Your task to perform on an android device: Is it going to rain tomorrow? Image 0: 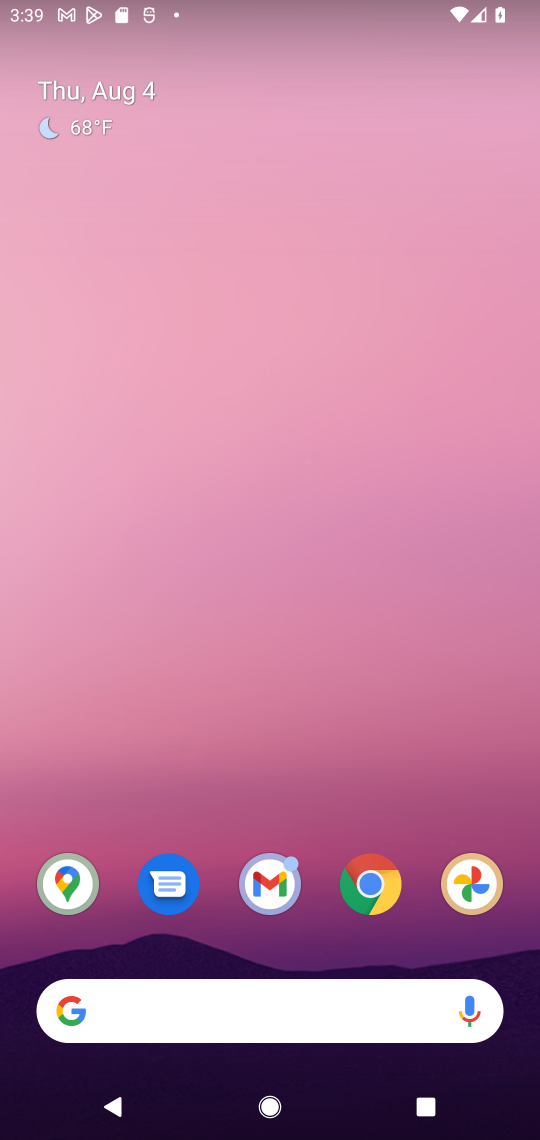
Step 0: click (208, 1004)
Your task to perform on an android device: Is it going to rain tomorrow? Image 1: 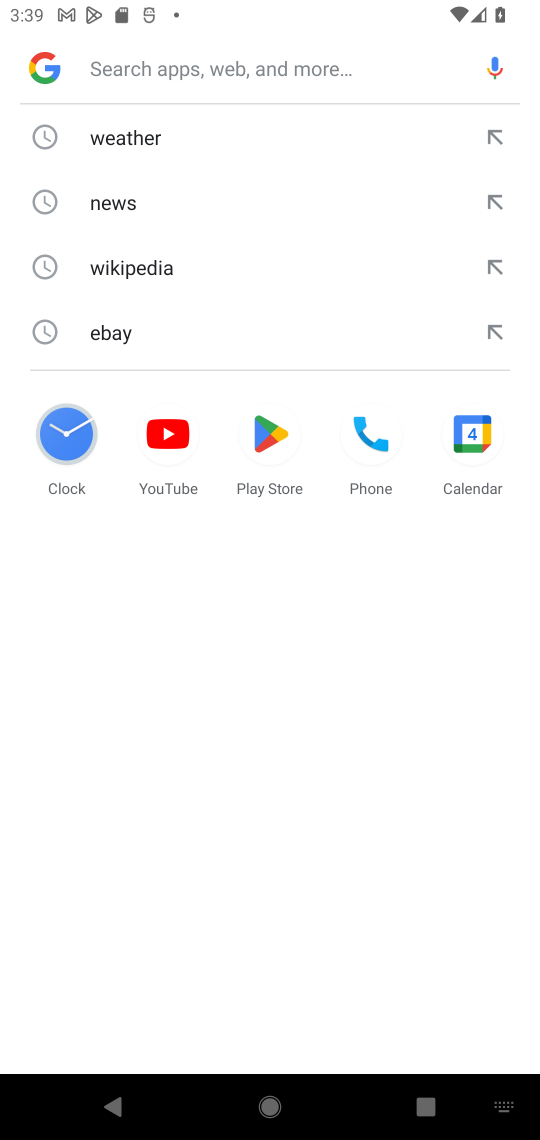
Step 1: type "rain"
Your task to perform on an android device: Is it going to rain tomorrow? Image 2: 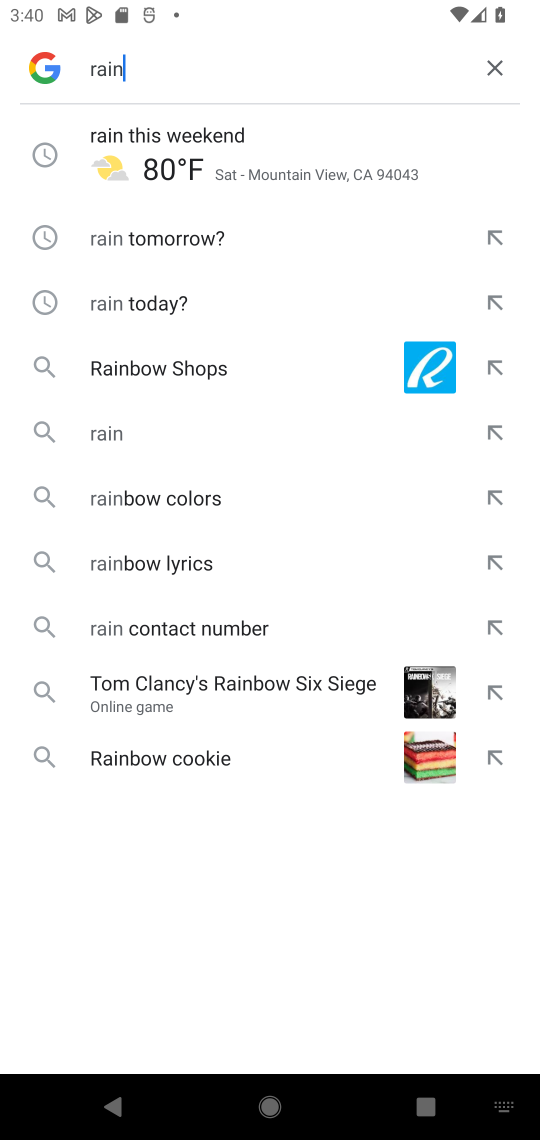
Step 2: click (225, 121)
Your task to perform on an android device: Is it going to rain tomorrow? Image 3: 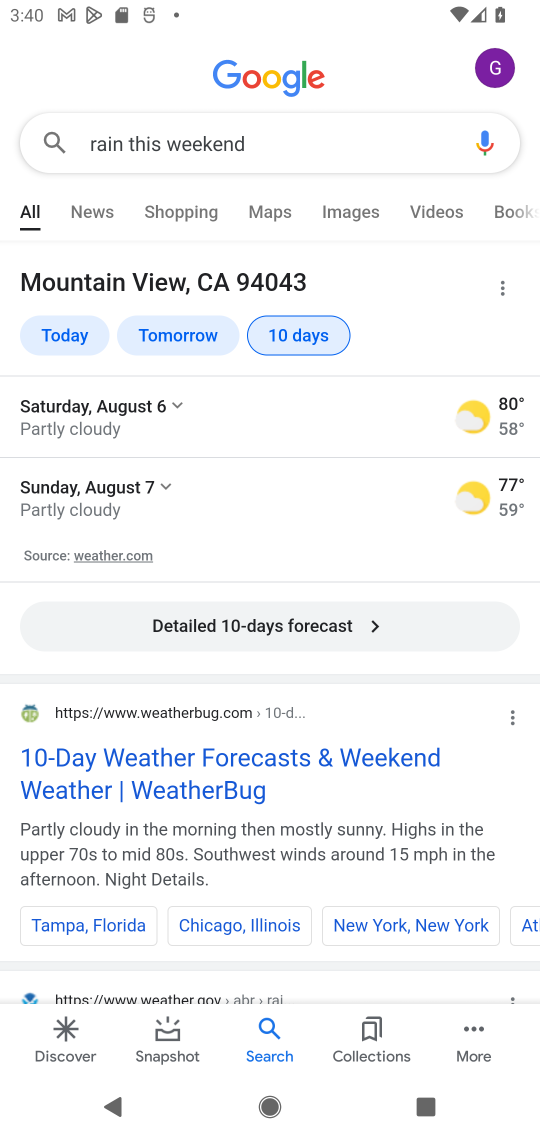
Step 3: task complete